Your task to perform on an android device: all mails in gmail Image 0: 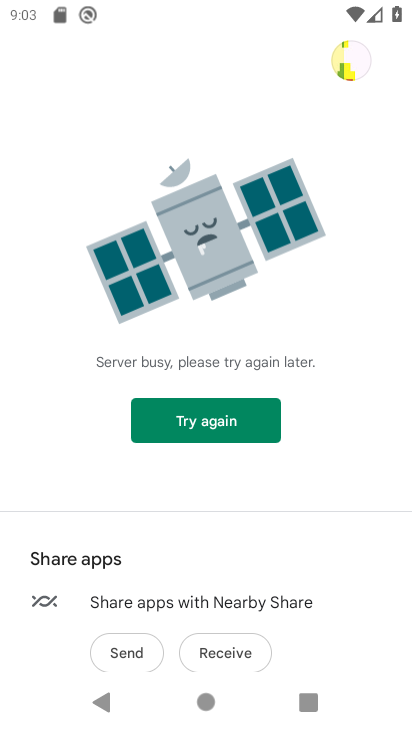
Step 0: press home button
Your task to perform on an android device: all mails in gmail Image 1: 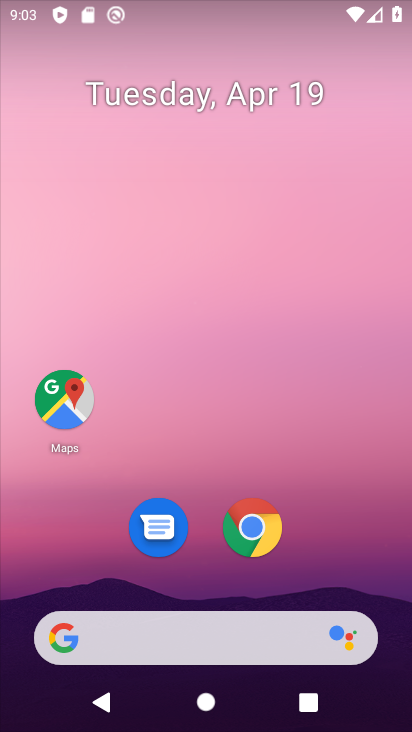
Step 1: drag from (209, 667) to (243, 267)
Your task to perform on an android device: all mails in gmail Image 2: 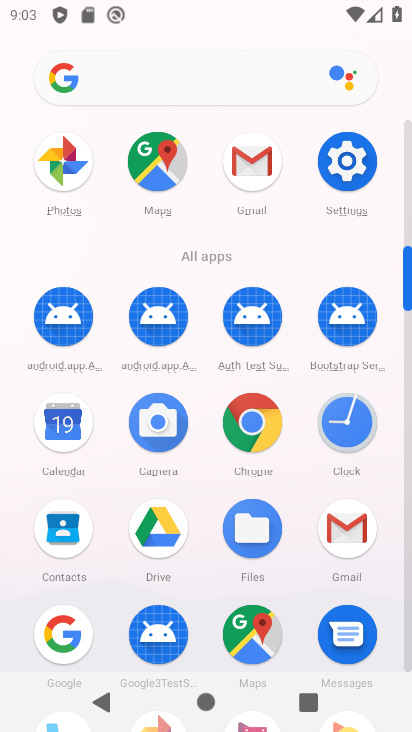
Step 2: click (245, 178)
Your task to perform on an android device: all mails in gmail Image 3: 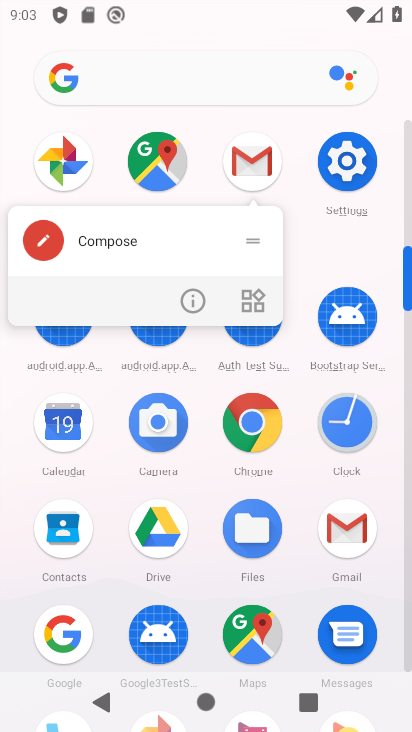
Step 3: click (247, 177)
Your task to perform on an android device: all mails in gmail Image 4: 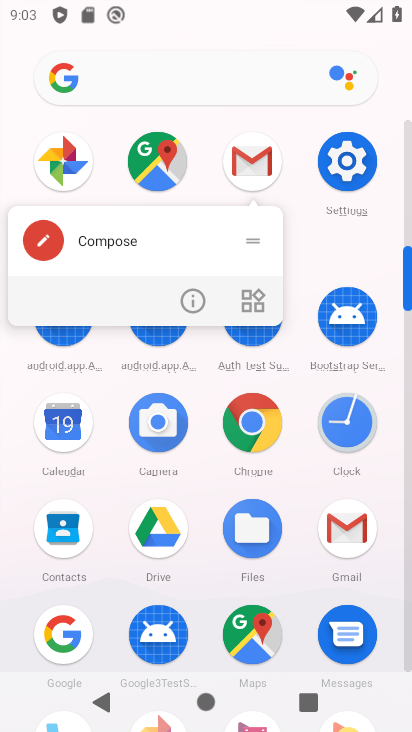
Step 4: click (247, 177)
Your task to perform on an android device: all mails in gmail Image 5: 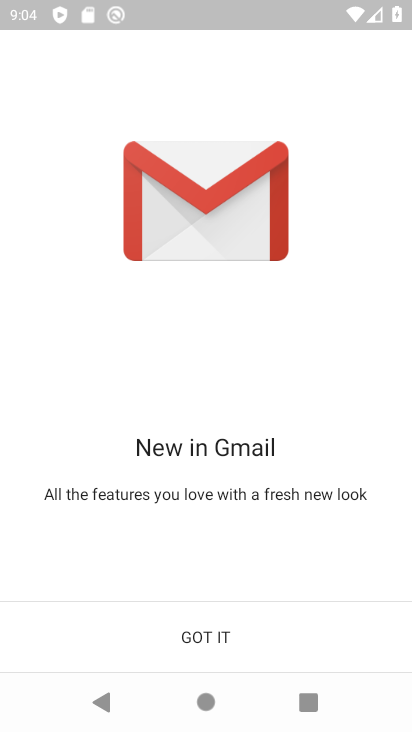
Step 5: click (217, 631)
Your task to perform on an android device: all mails in gmail Image 6: 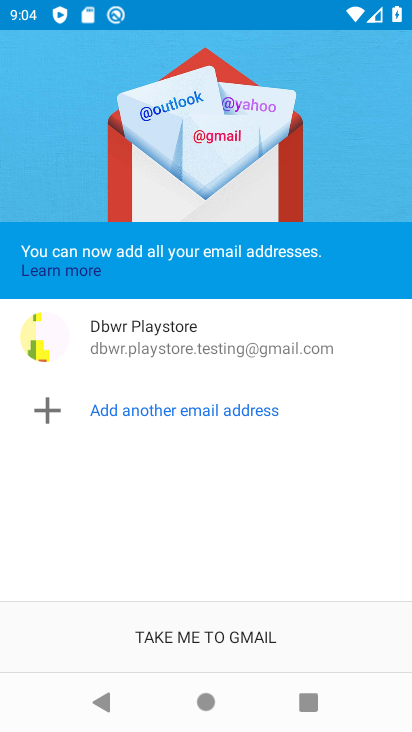
Step 6: click (206, 642)
Your task to perform on an android device: all mails in gmail Image 7: 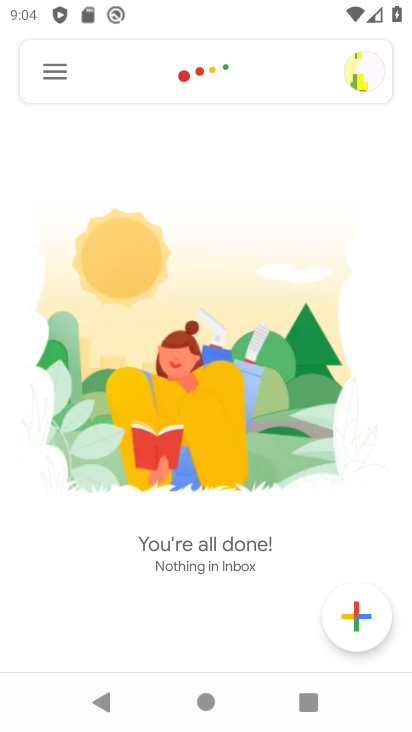
Step 7: click (49, 81)
Your task to perform on an android device: all mails in gmail Image 8: 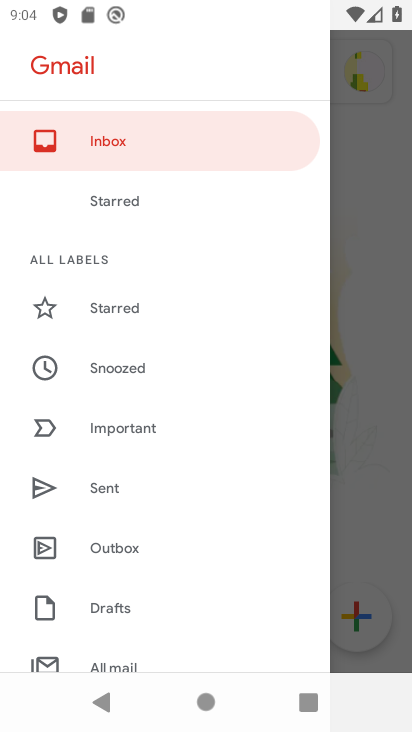
Step 8: click (112, 658)
Your task to perform on an android device: all mails in gmail Image 9: 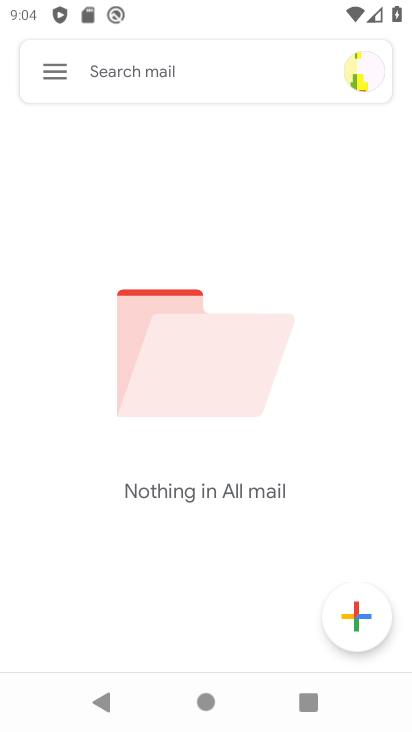
Step 9: task complete